Your task to perform on an android device: Go to Wikipedia Image 0: 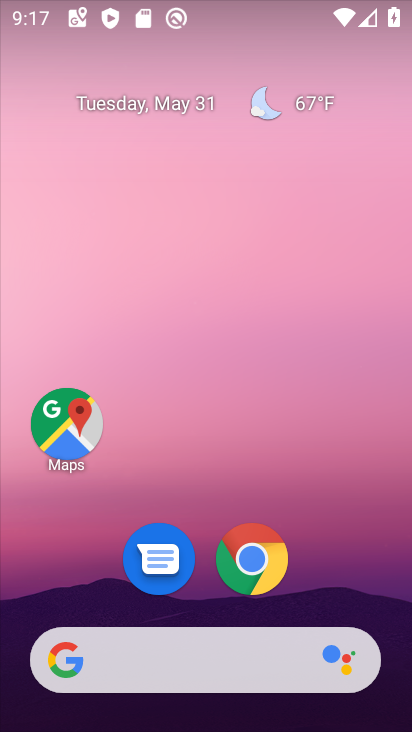
Step 0: click (251, 560)
Your task to perform on an android device: Go to Wikipedia Image 1: 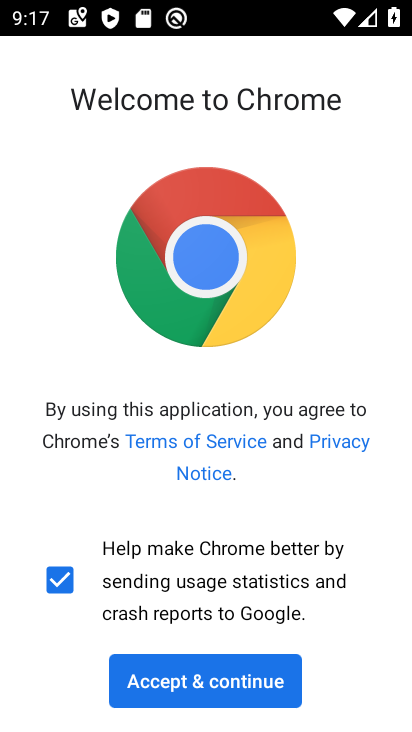
Step 1: click (223, 666)
Your task to perform on an android device: Go to Wikipedia Image 2: 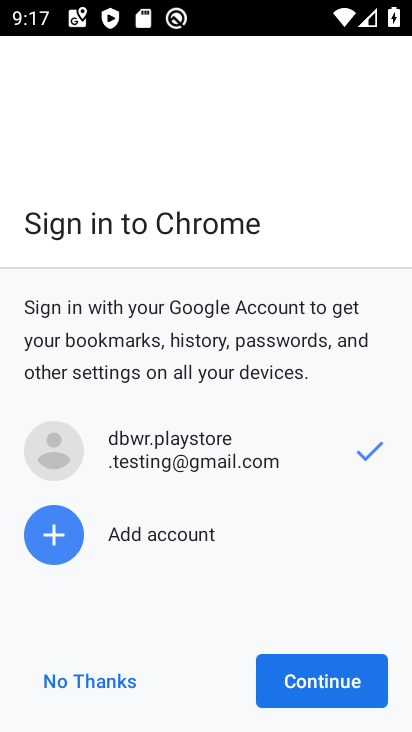
Step 2: click (319, 669)
Your task to perform on an android device: Go to Wikipedia Image 3: 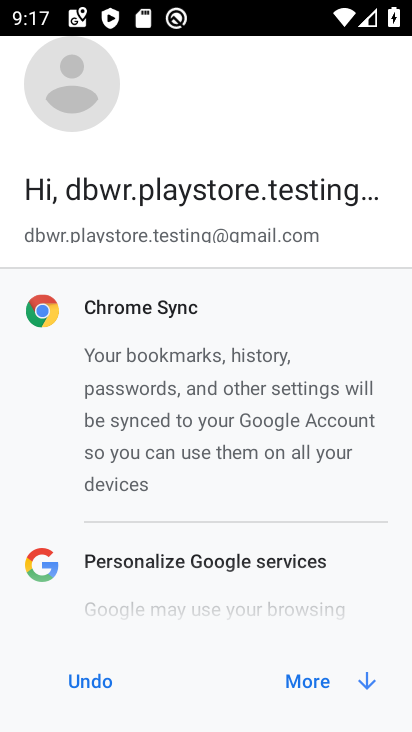
Step 3: click (319, 669)
Your task to perform on an android device: Go to Wikipedia Image 4: 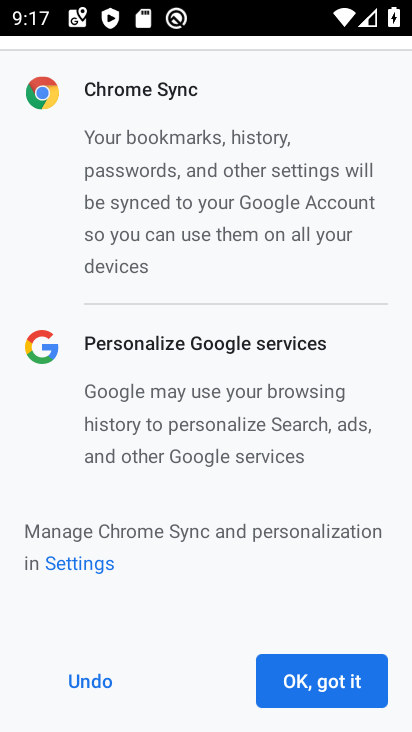
Step 4: click (319, 669)
Your task to perform on an android device: Go to Wikipedia Image 5: 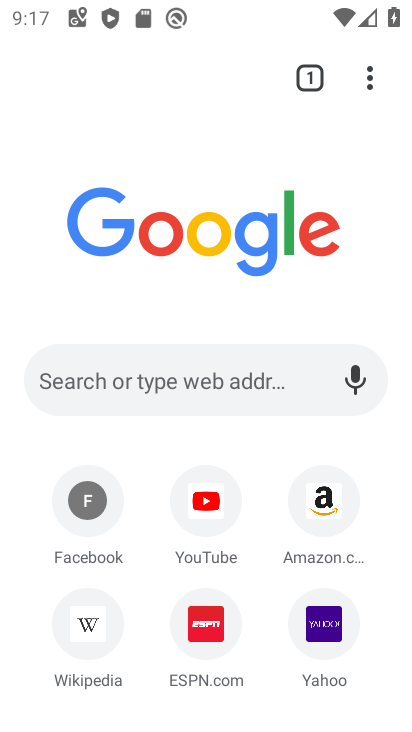
Step 5: click (90, 626)
Your task to perform on an android device: Go to Wikipedia Image 6: 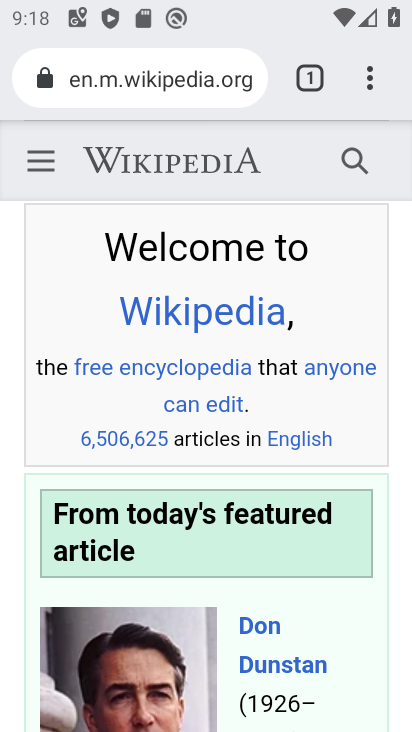
Step 6: task complete